Your task to perform on an android device: What's the weather going to be tomorrow? Image 0: 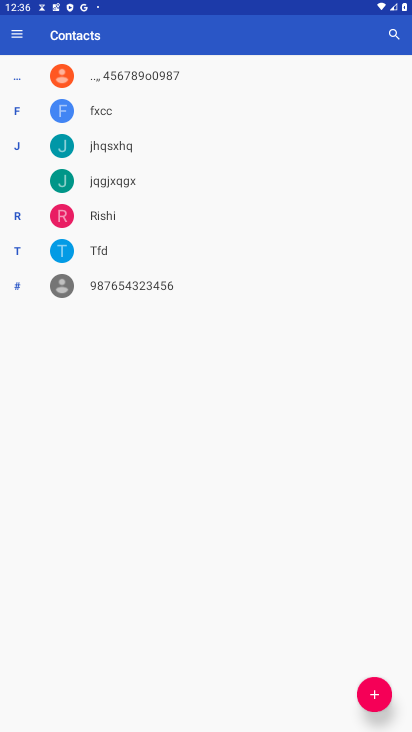
Step 0: press home button
Your task to perform on an android device: What's the weather going to be tomorrow? Image 1: 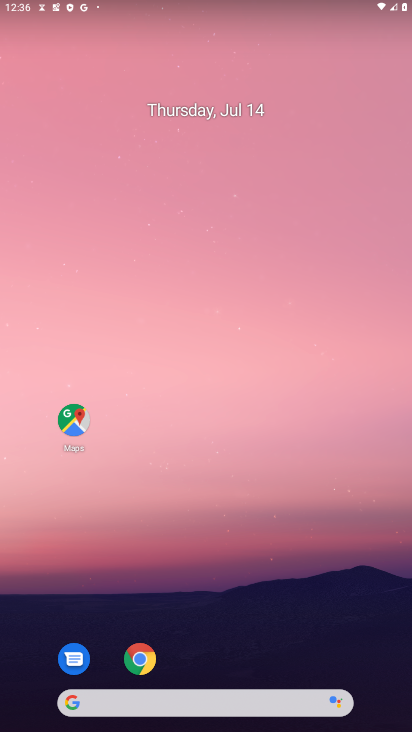
Step 1: click (112, 709)
Your task to perform on an android device: What's the weather going to be tomorrow? Image 2: 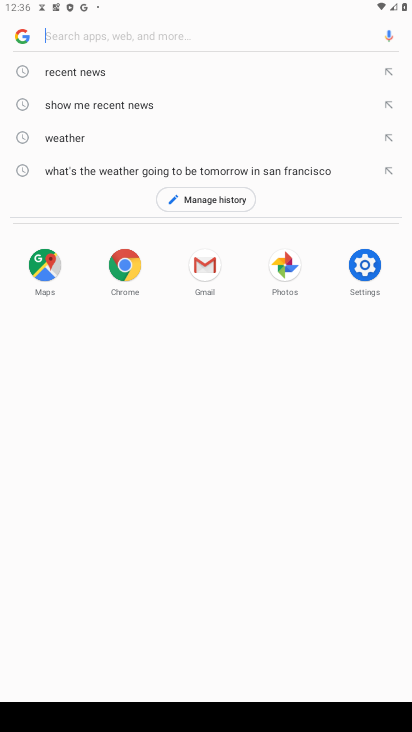
Step 2: type "What's the weather going to be tomorrow?"
Your task to perform on an android device: What's the weather going to be tomorrow? Image 3: 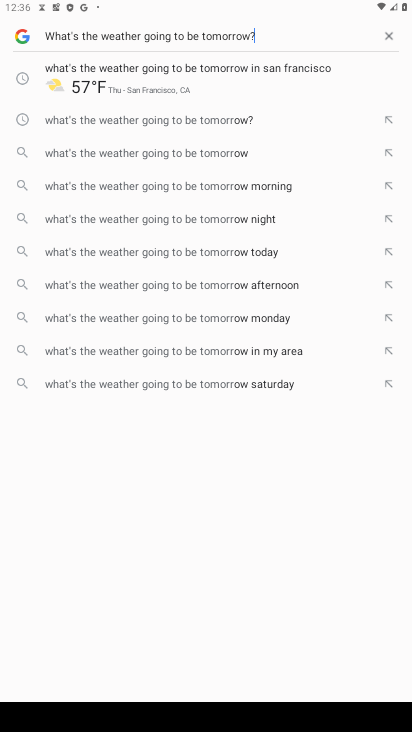
Step 3: type ""
Your task to perform on an android device: What's the weather going to be tomorrow? Image 4: 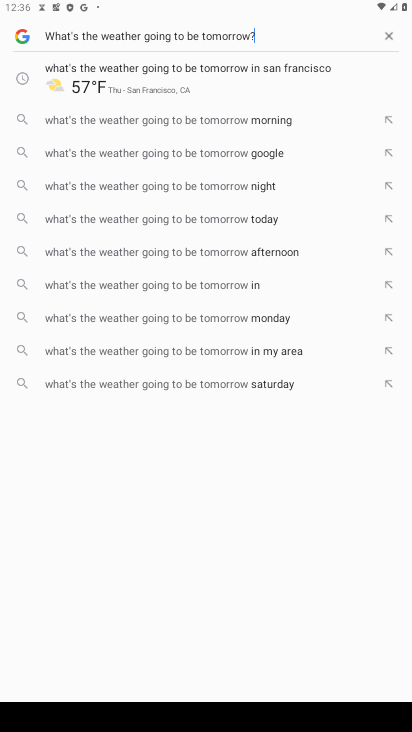
Step 4: task complete